Your task to perform on an android device: refresh tabs in the chrome app Image 0: 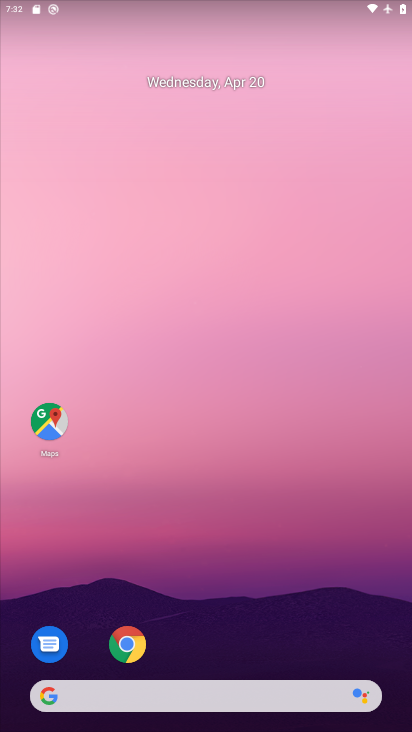
Step 0: drag from (345, 619) to (265, 49)
Your task to perform on an android device: refresh tabs in the chrome app Image 1: 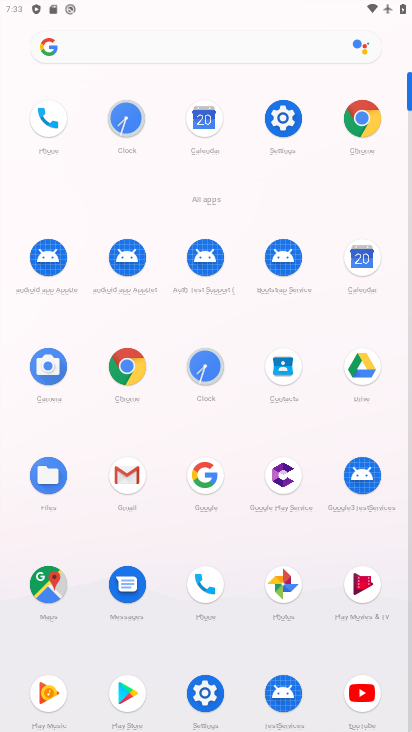
Step 1: click (134, 367)
Your task to perform on an android device: refresh tabs in the chrome app Image 2: 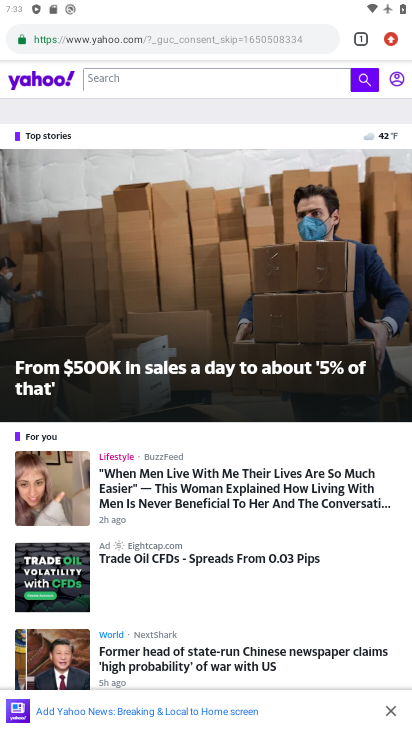
Step 2: press back button
Your task to perform on an android device: refresh tabs in the chrome app Image 3: 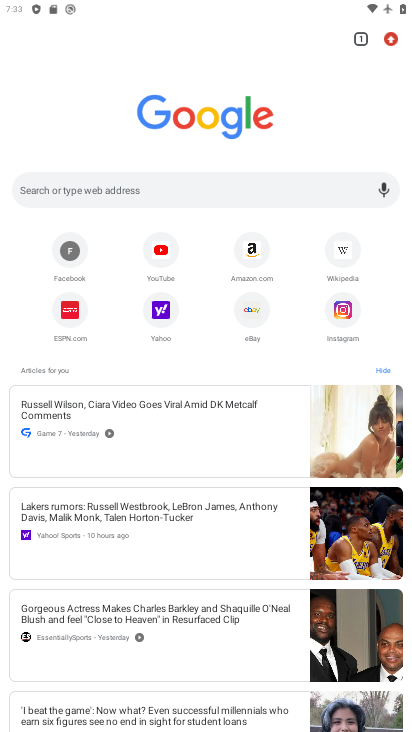
Step 3: click (386, 43)
Your task to perform on an android device: refresh tabs in the chrome app Image 4: 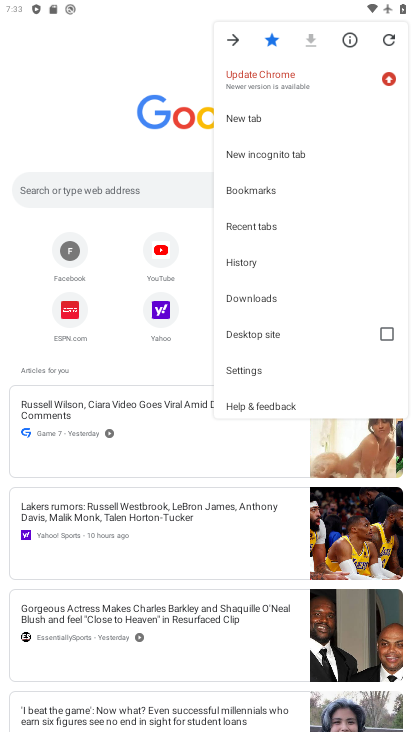
Step 4: click (381, 42)
Your task to perform on an android device: refresh tabs in the chrome app Image 5: 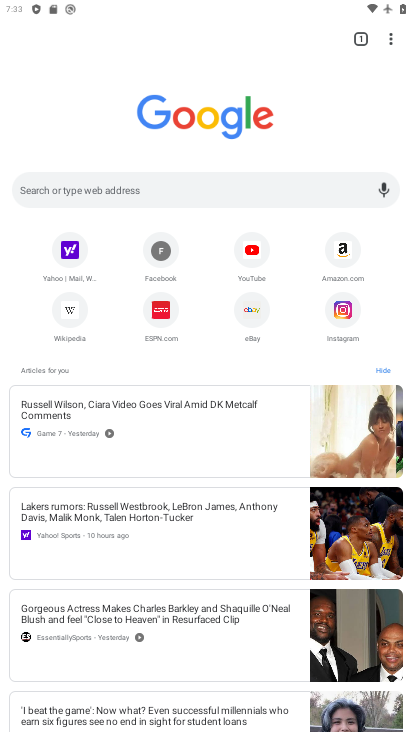
Step 5: task complete